Your task to perform on an android device: Search for razer huntsman on costco.com, select the first entry, and add it to the cart. Image 0: 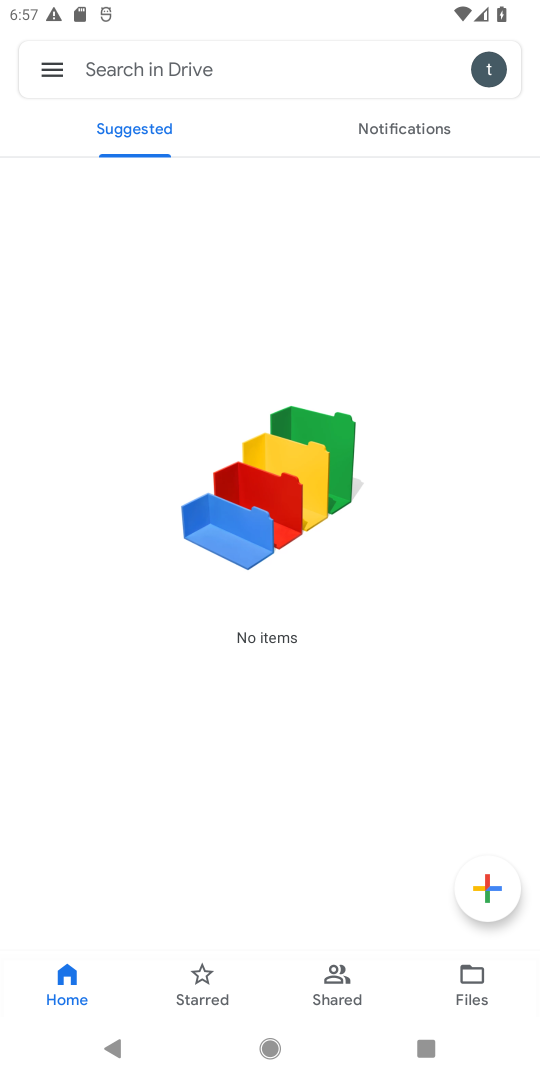
Step 0: press home button
Your task to perform on an android device: Search for razer huntsman on costco.com, select the first entry, and add it to the cart. Image 1: 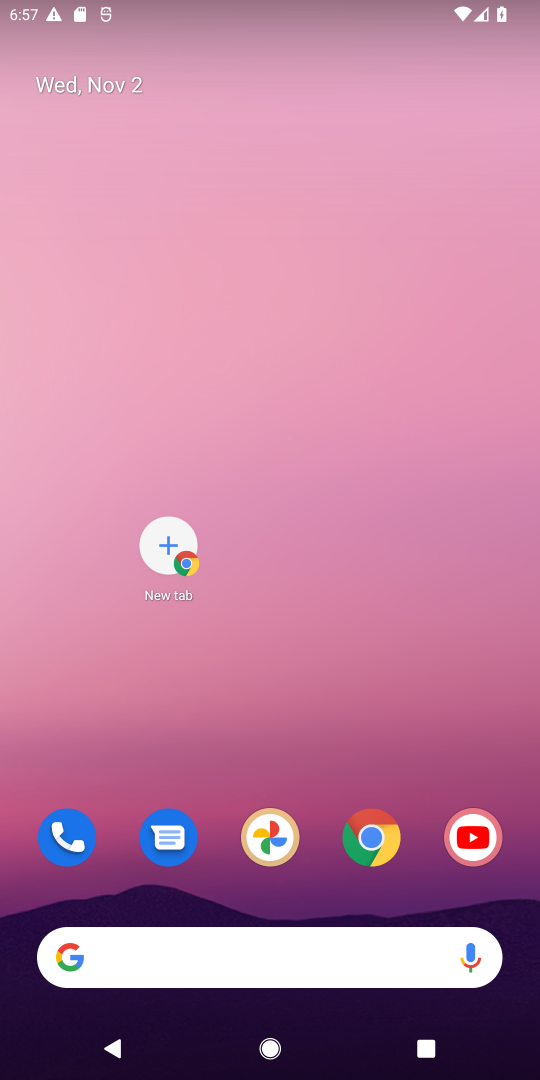
Step 1: click (175, 551)
Your task to perform on an android device: Search for razer huntsman on costco.com, select the first entry, and add it to the cart. Image 2: 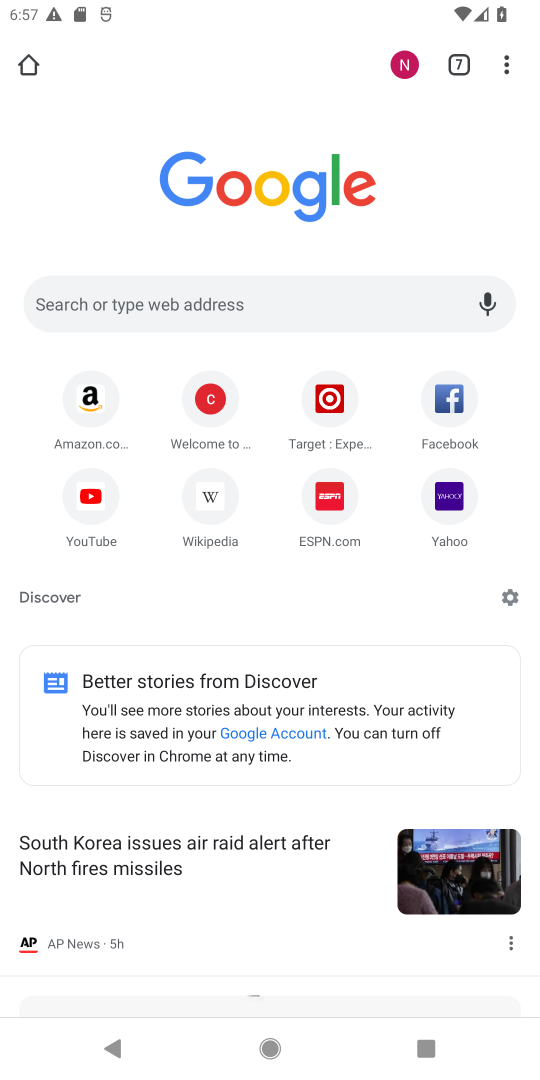
Step 2: click (250, 312)
Your task to perform on an android device: Search for razer huntsman on costco.com, select the first entry, and add it to the cart. Image 3: 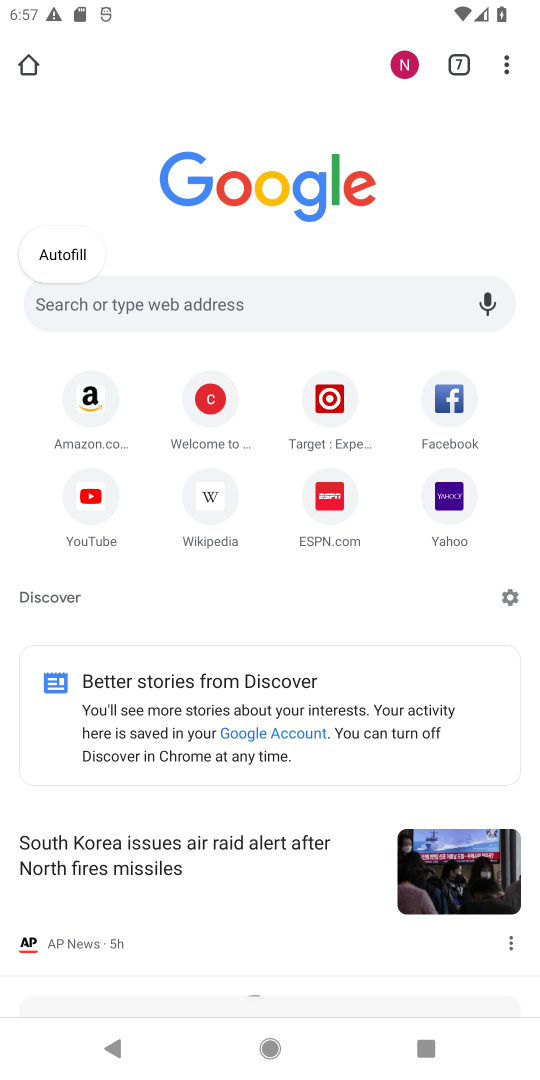
Step 3: click (255, 303)
Your task to perform on an android device: Search for razer huntsman on costco.com, select the first entry, and add it to the cart. Image 4: 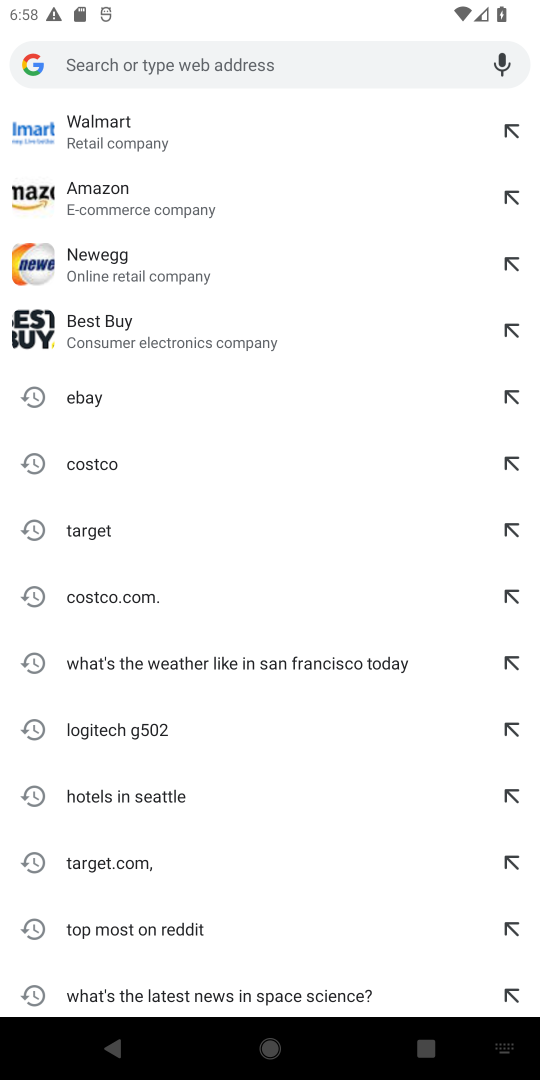
Step 4: type "costco.com"
Your task to perform on an android device: Search for razer huntsman on costco.com, select the first entry, and add it to the cart. Image 5: 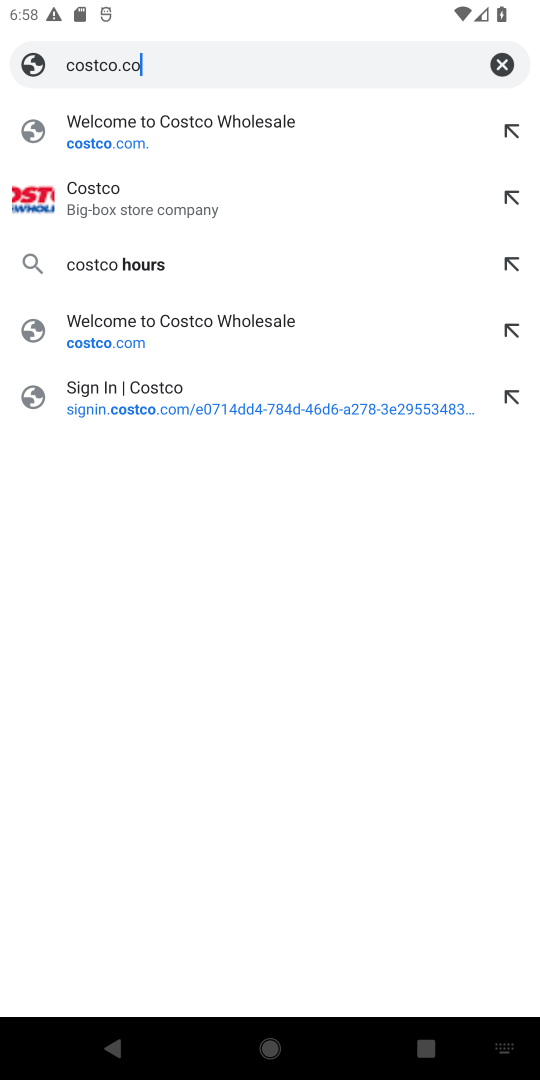
Step 5: type ""
Your task to perform on an android device: Search for razer huntsman on costco.com, select the first entry, and add it to the cart. Image 6: 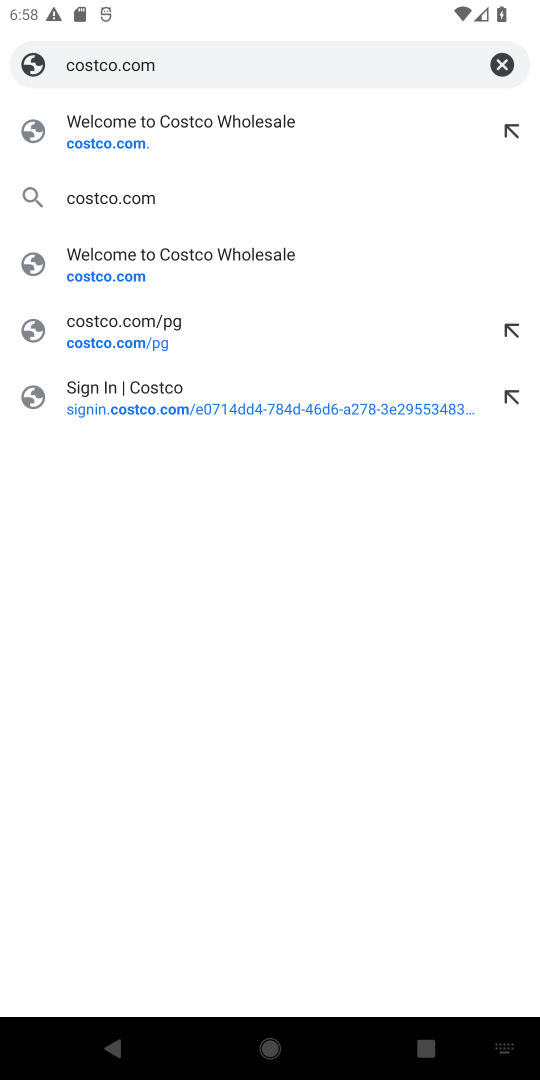
Step 6: click (159, 139)
Your task to perform on an android device: Search for razer huntsman on costco.com, select the first entry, and add it to the cart. Image 7: 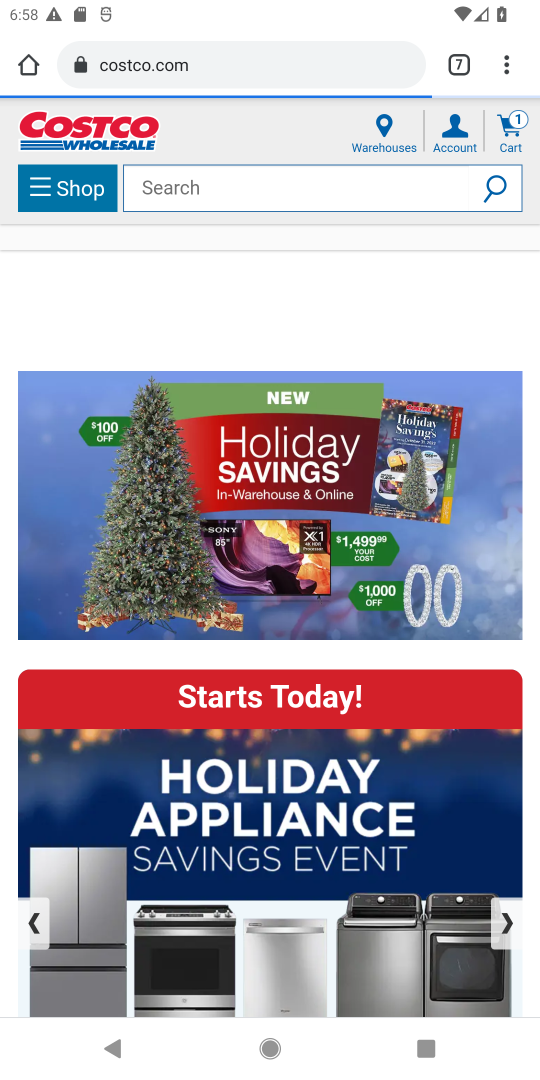
Step 7: click (284, 189)
Your task to perform on an android device: Search for razer huntsman on costco.com, select the first entry, and add it to the cart. Image 8: 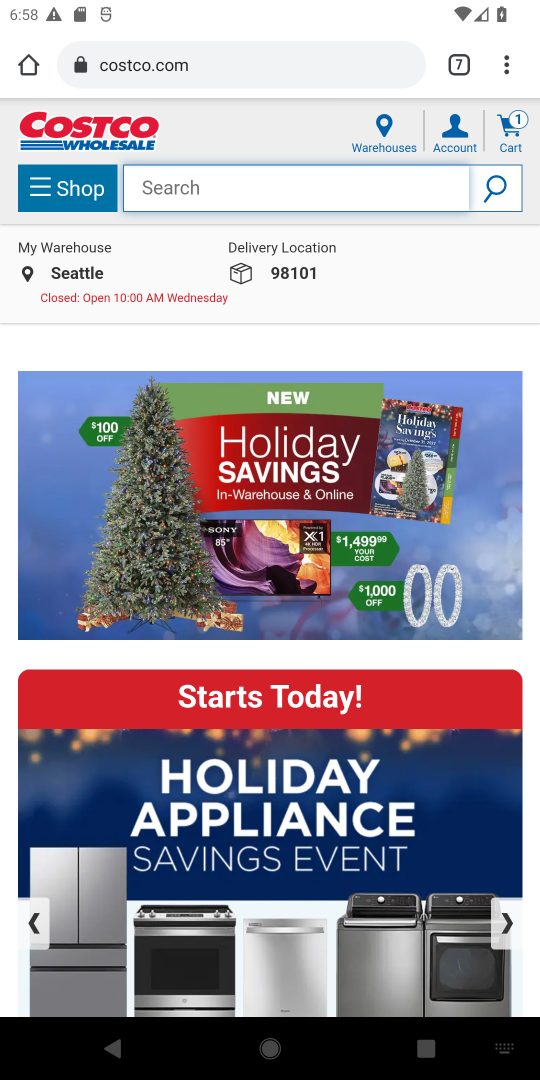
Step 8: type "razer huntsman"
Your task to perform on an android device: Search for razer huntsman on costco.com, select the first entry, and add it to the cart. Image 9: 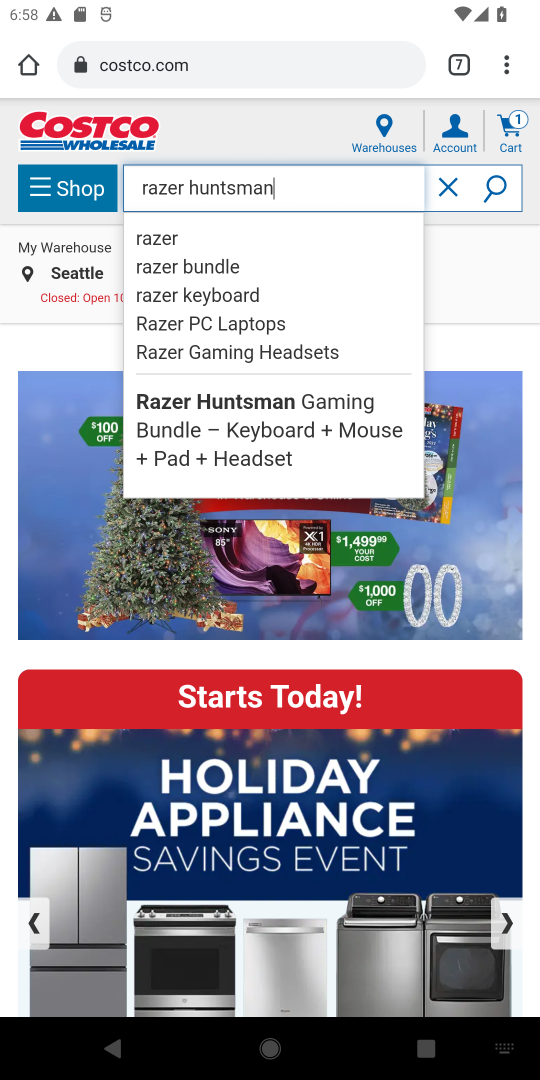
Step 9: click (194, 239)
Your task to perform on an android device: Search for razer huntsman on costco.com, select the first entry, and add it to the cart. Image 10: 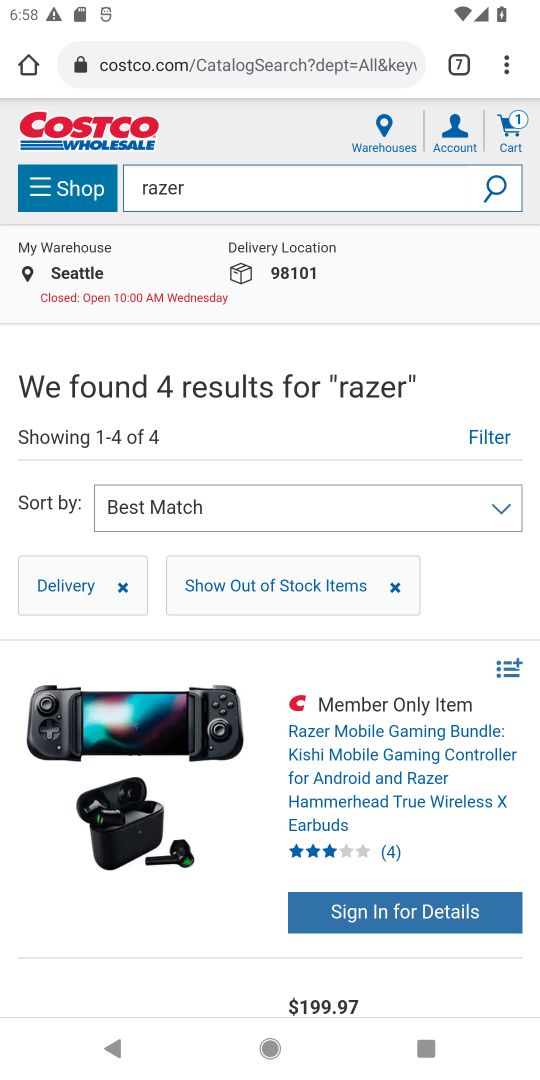
Step 10: click (203, 720)
Your task to perform on an android device: Search for razer huntsman on costco.com, select the first entry, and add it to the cart. Image 11: 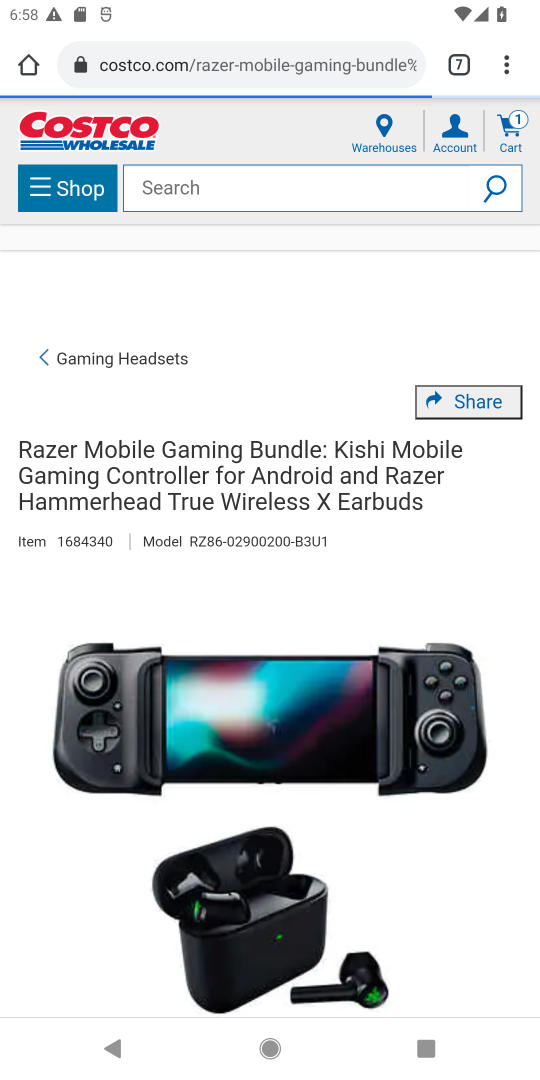
Step 11: drag from (239, 749) to (296, 409)
Your task to perform on an android device: Search for razer huntsman on costco.com, select the first entry, and add it to the cart. Image 12: 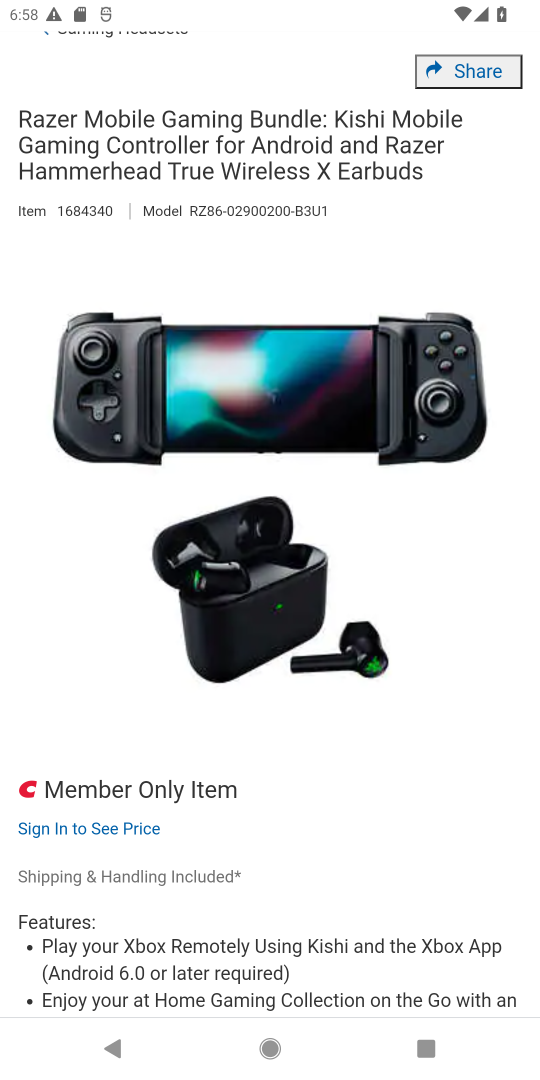
Step 12: drag from (251, 758) to (326, 383)
Your task to perform on an android device: Search for razer huntsman on costco.com, select the first entry, and add it to the cart. Image 13: 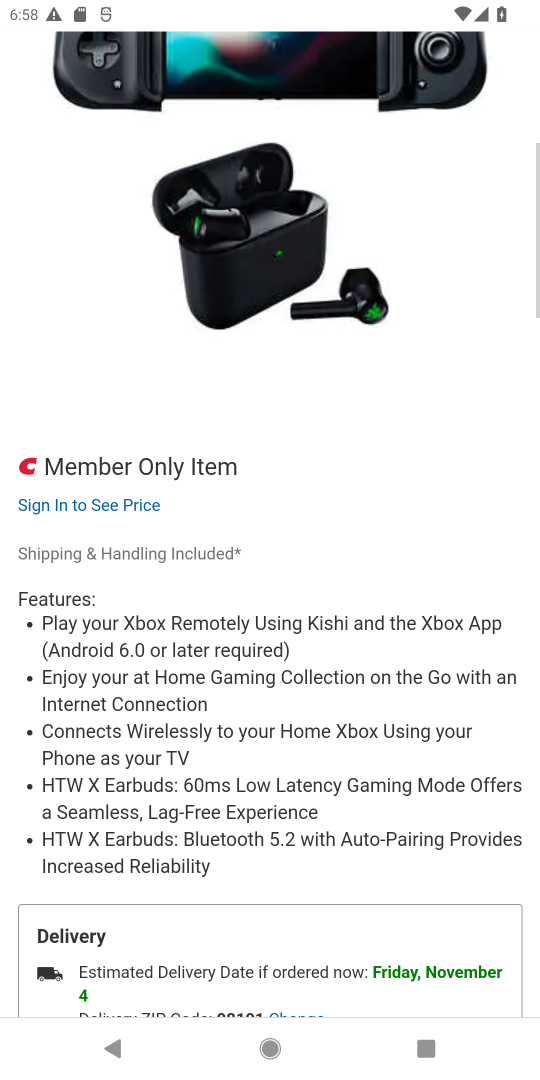
Step 13: drag from (276, 844) to (375, 347)
Your task to perform on an android device: Search for razer huntsman on costco.com, select the first entry, and add it to the cart. Image 14: 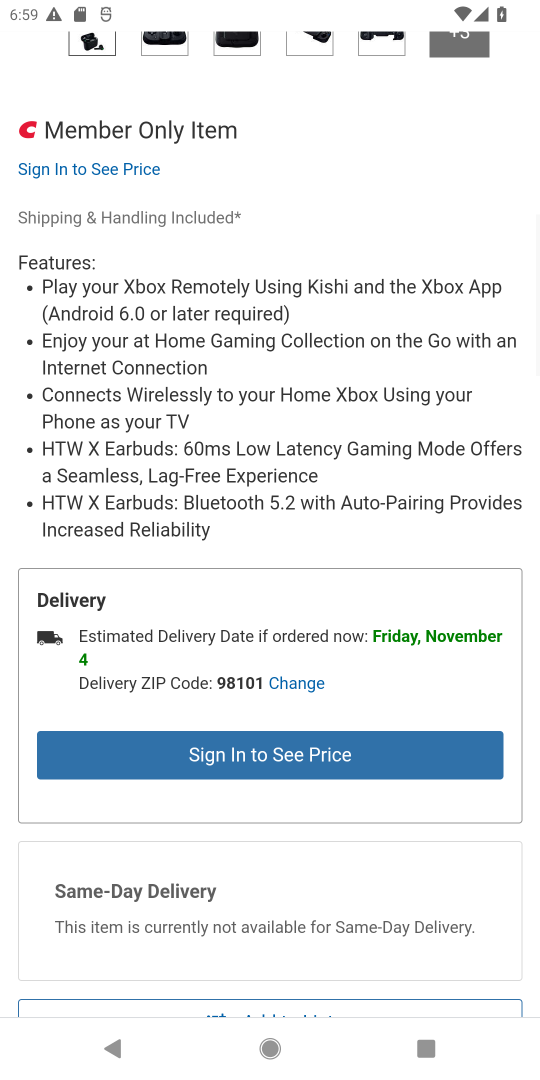
Step 14: drag from (266, 858) to (295, 402)
Your task to perform on an android device: Search for razer huntsman on costco.com, select the first entry, and add it to the cart. Image 15: 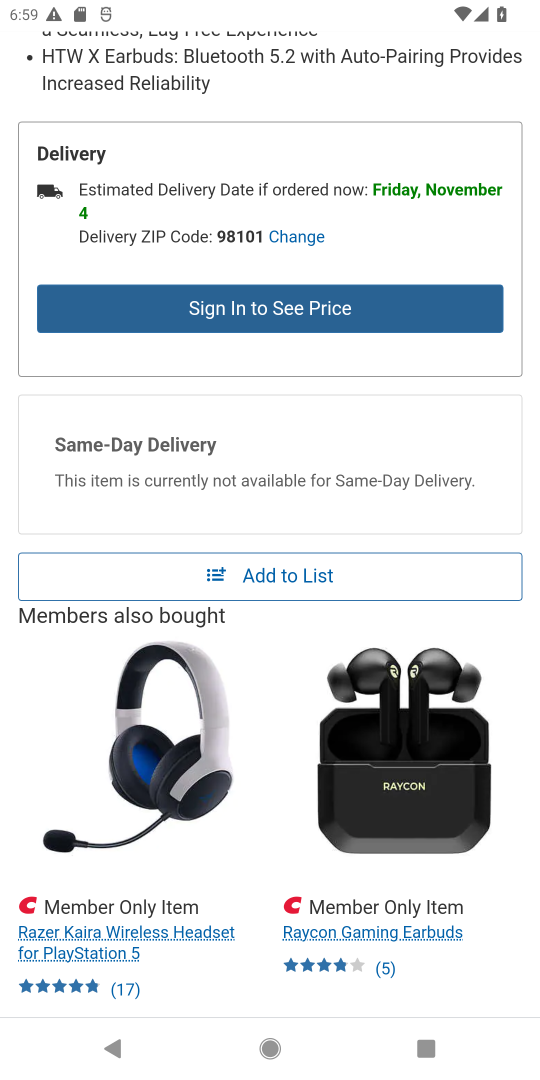
Step 15: drag from (289, 573) to (328, 300)
Your task to perform on an android device: Search for razer huntsman on costco.com, select the first entry, and add it to the cart. Image 16: 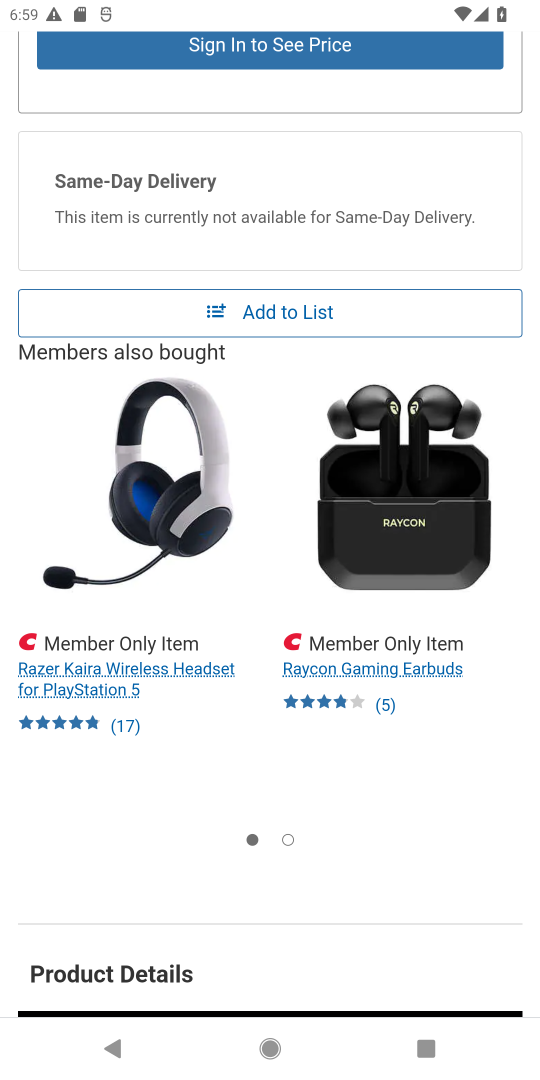
Step 16: drag from (297, 723) to (367, 901)
Your task to perform on an android device: Search for razer huntsman on costco.com, select the first entry, and add it to the cart. Image 17: 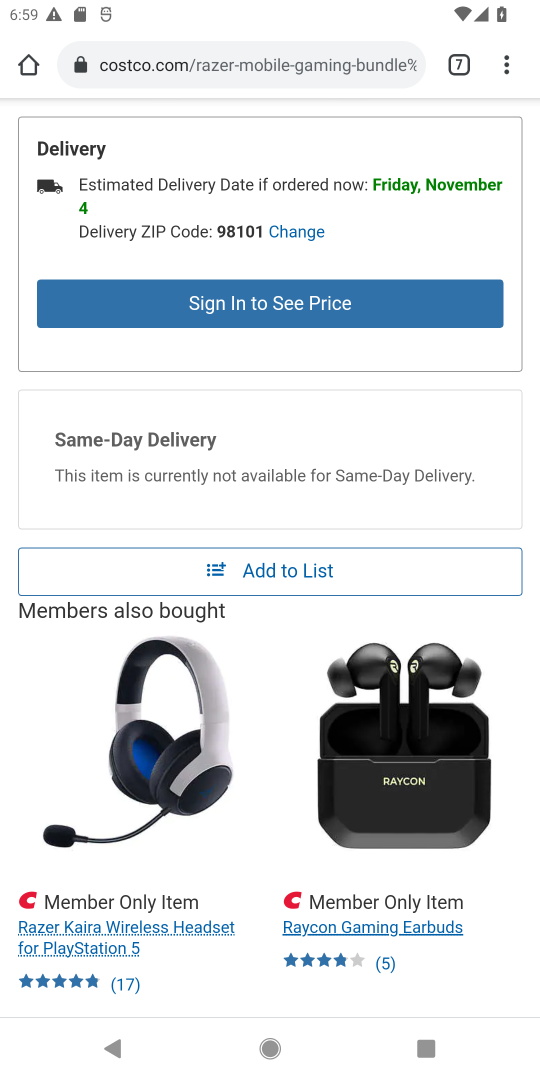
Step 17: drag from (335, 375) to (334, 814)
Your task to perform on an android device: Search for razer huntsman on costco.com, select the first entry, and add it to the cart. Image 18: 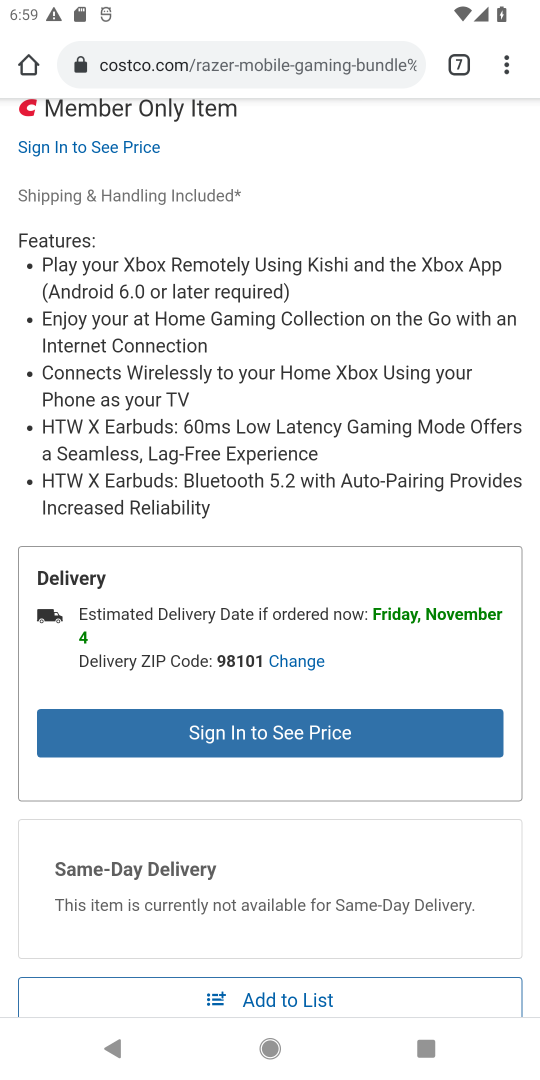
Step 18: drag from (334, 814) to (351, 497)
Your task to perform on an android device: Search for razer huntsman on costco.com, select the first entry, and add it to the cart. Image 19: 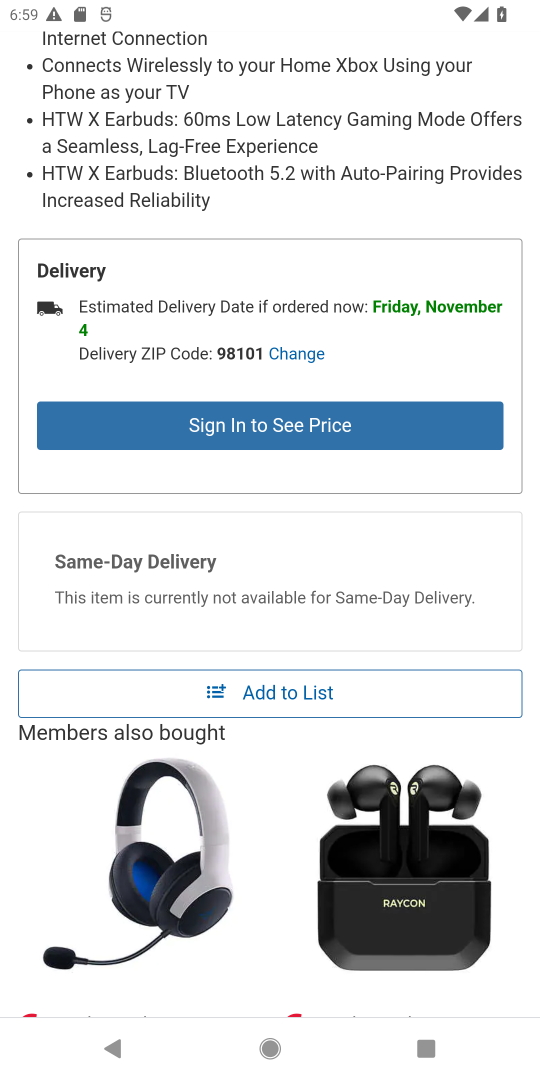
Step 19: click (291, 696)
Your task to perform on an android device: Search for razer huntsman on costco.com, select the first entry, and add it to the cart. Image 20: 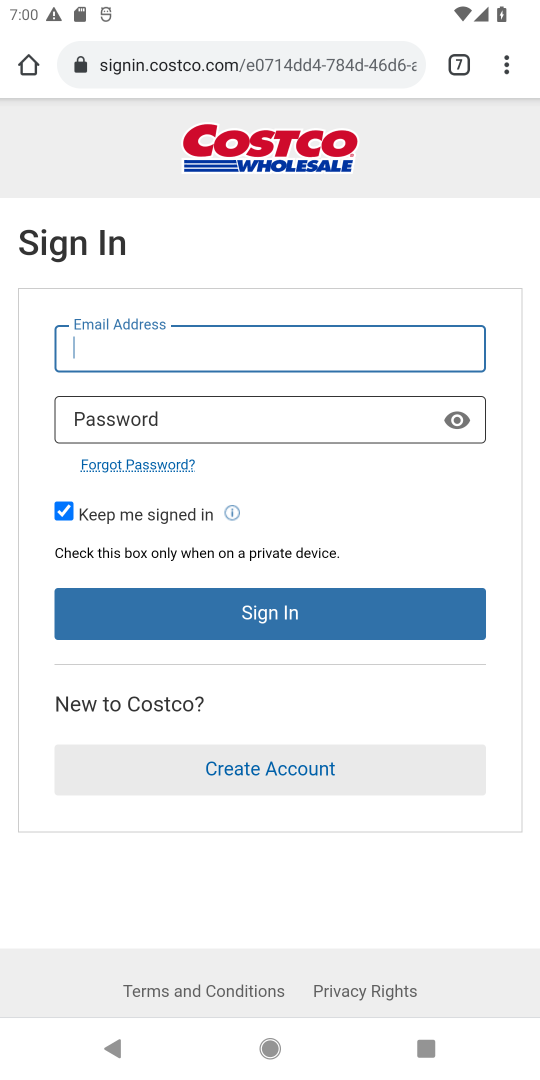
Step 20: press back button
Your task to perform on an android device: Search for razer huntsman on costco.com, select the first entry, and add it to the cart. Image 21: 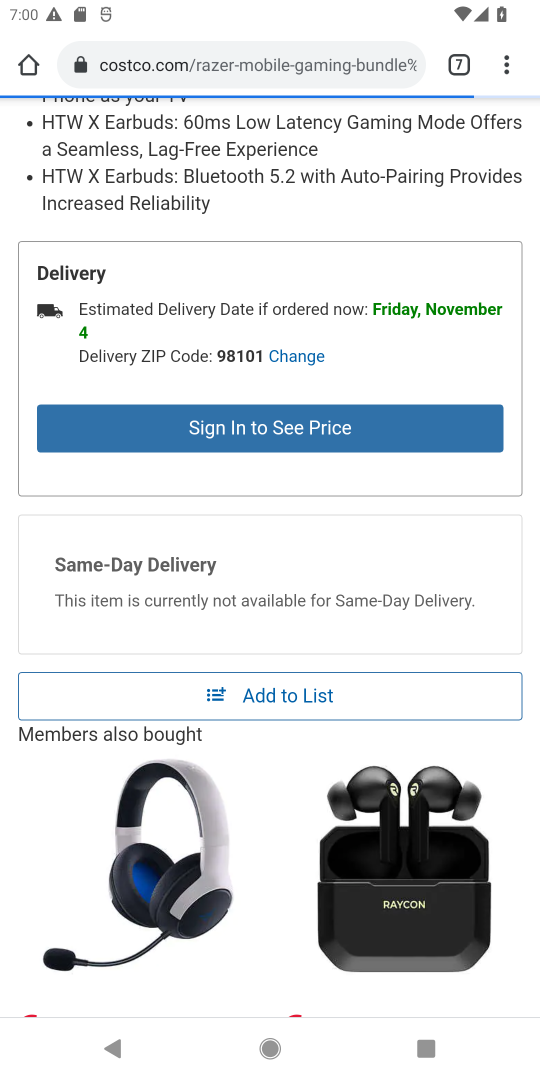
Step 21: drag from (309, 753) to (320, 987)
Your task to perform on an android device: Search for razer huntsman on costco.com, select the first entry, and add it to the cart. Image 22: 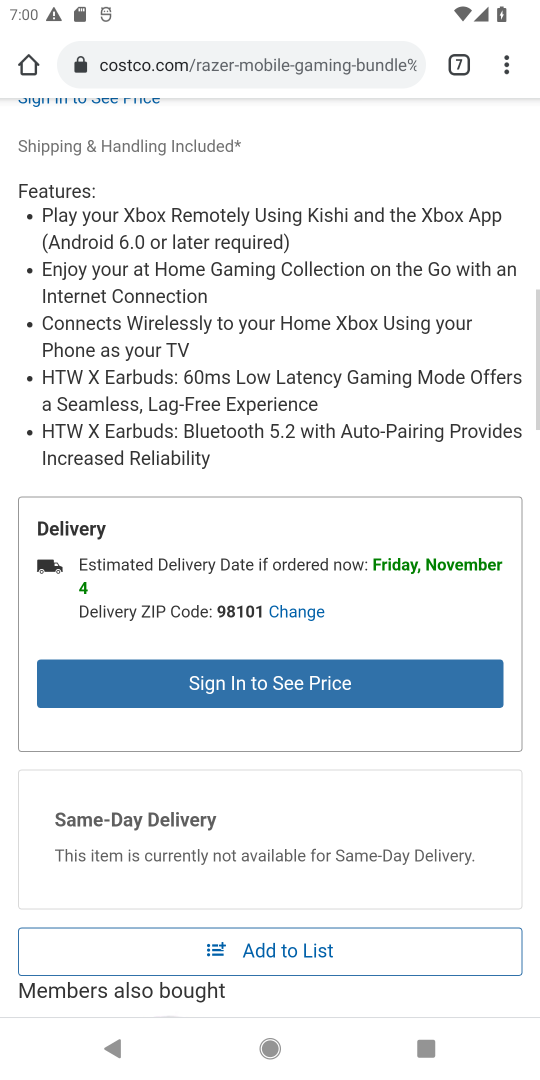
Step 22: drag from (345, 560) to (389, 974)
Your task to perform on an android device: Search for razer huntsman on costco.com, select the first entry, and add it to the cart. Image 23: 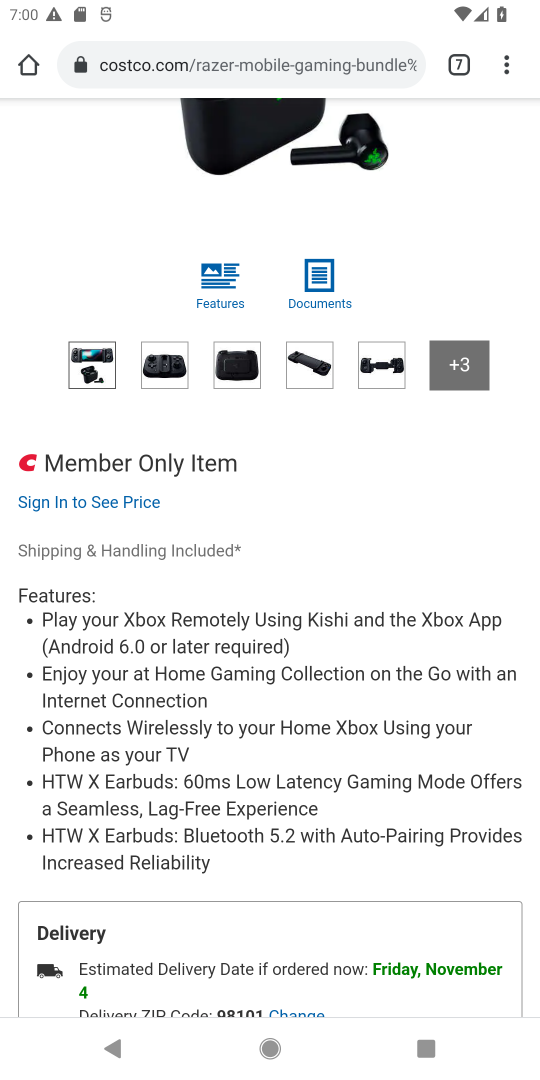
Step 23: drag from (372, 544) to (363, 1077)
Your task to perform on an android device: Search for razer huntsman on costco.com, select the first entry, and add it to the cart. Image 24: 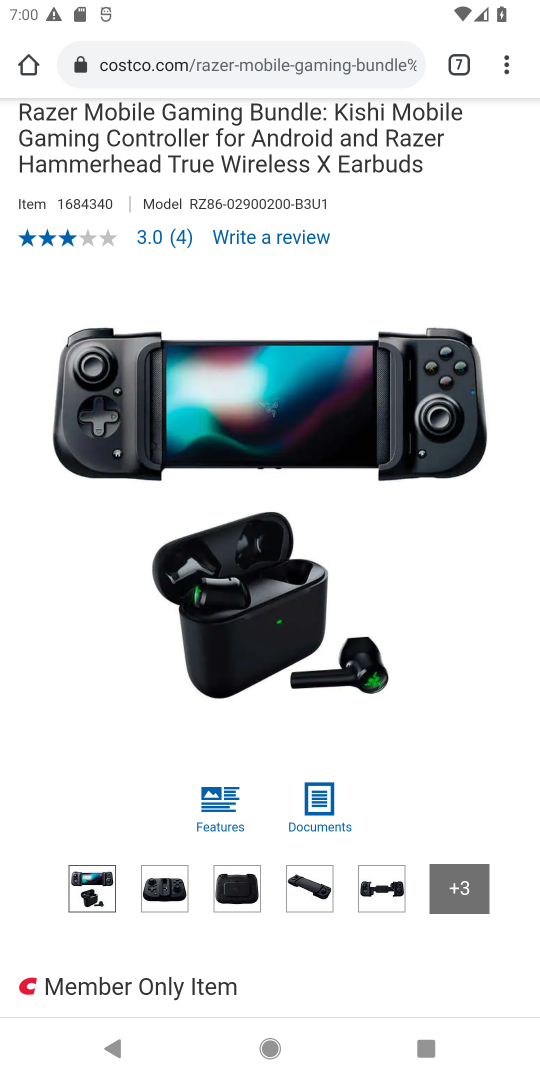
Step 24: drag from (393, 612) to (446, 1055)
Your task to perform on an android device: Search for razer huntsman on costco.com, select the first entry, and add it to the cart. Image 25: 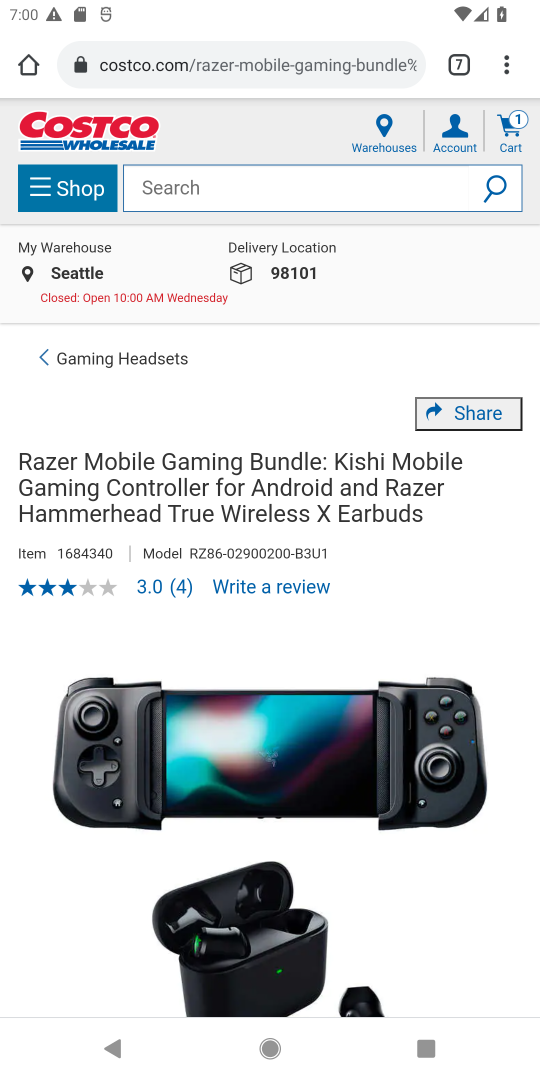
Step 25: click (518, 132)
Your task to perform on an android device: Search for razer huntsman on costco.com, select the first entry, and add it to the cart. Image 26: 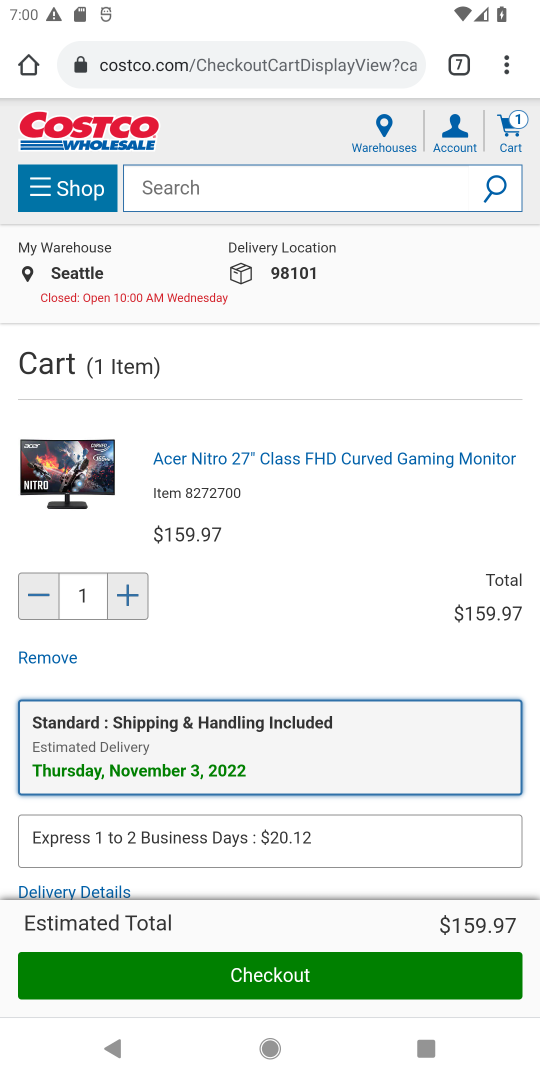
Step 26: press back button
Your task to perform on an android device: Search for razer huntsman on costco.com, select the first entry, and add it to the cart. Image 27: 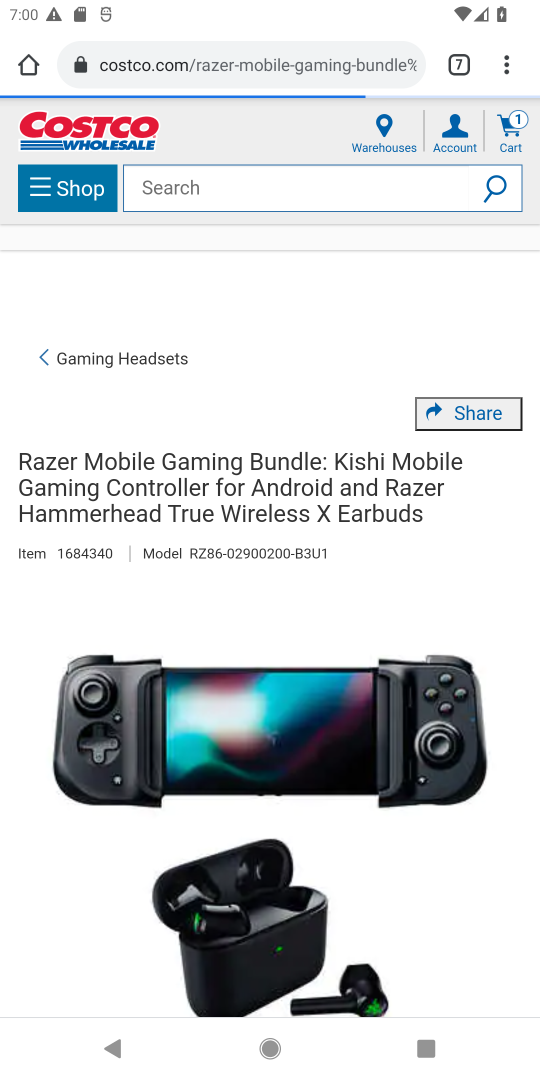
Step 27: drag from (239, 774) to (316, 320)
Your task to perform on an android device: Search for razer huntsman on costco.com, select the first entry, and add it to the cart. Image 28: 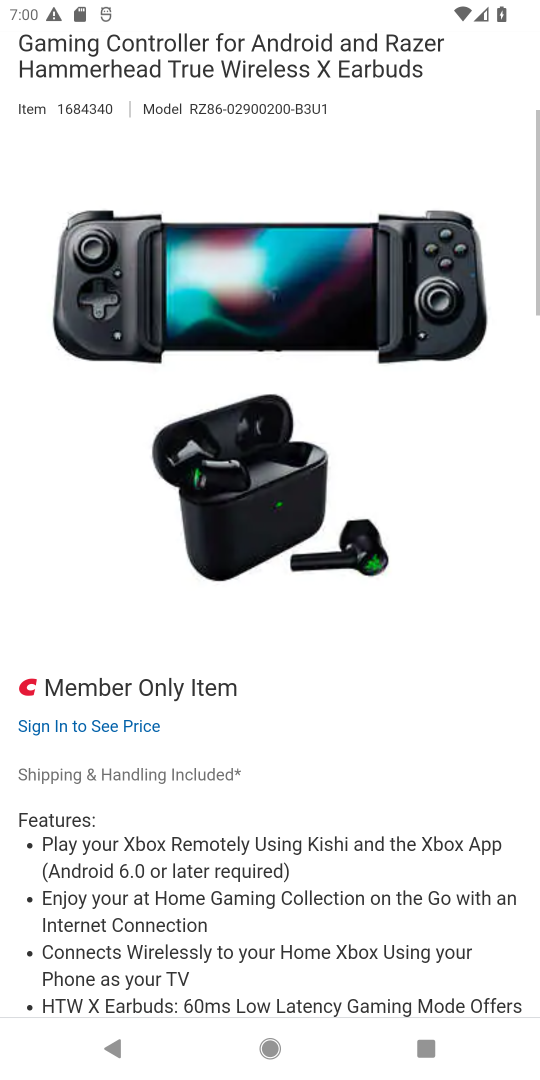
Step 28: drag from (271, 836) to (319, 394)
Your task to perform on an android device: Search for razer huntsman on costco.com, select the first entry, and add it to the cart. Image 29: 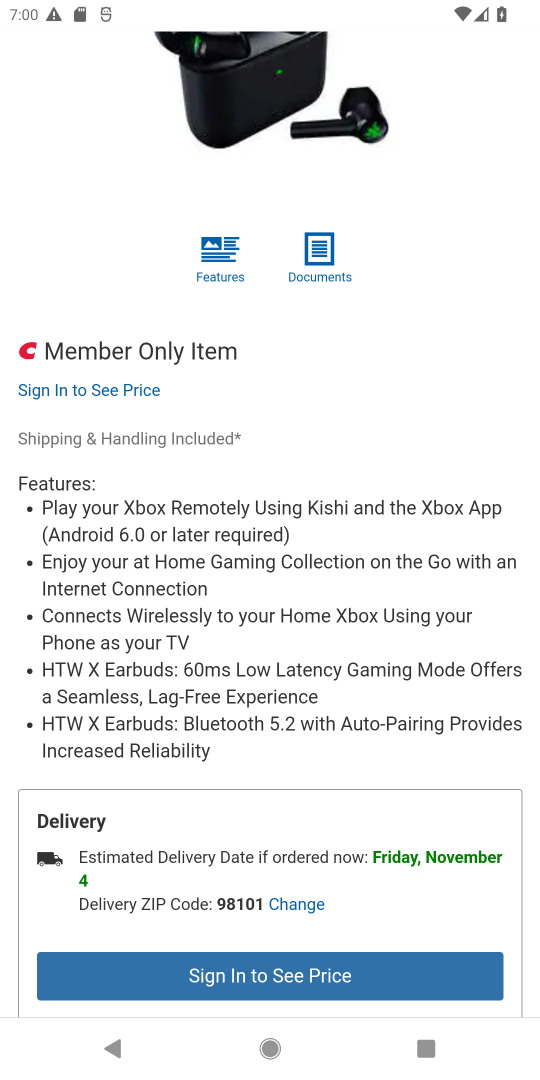
Step 29: drag from (338, 870) to (394, 402)
Your task to perform on an android device: Search for razer huntsman on costco.com, select the first entry, and add it to the cart. Image 30: 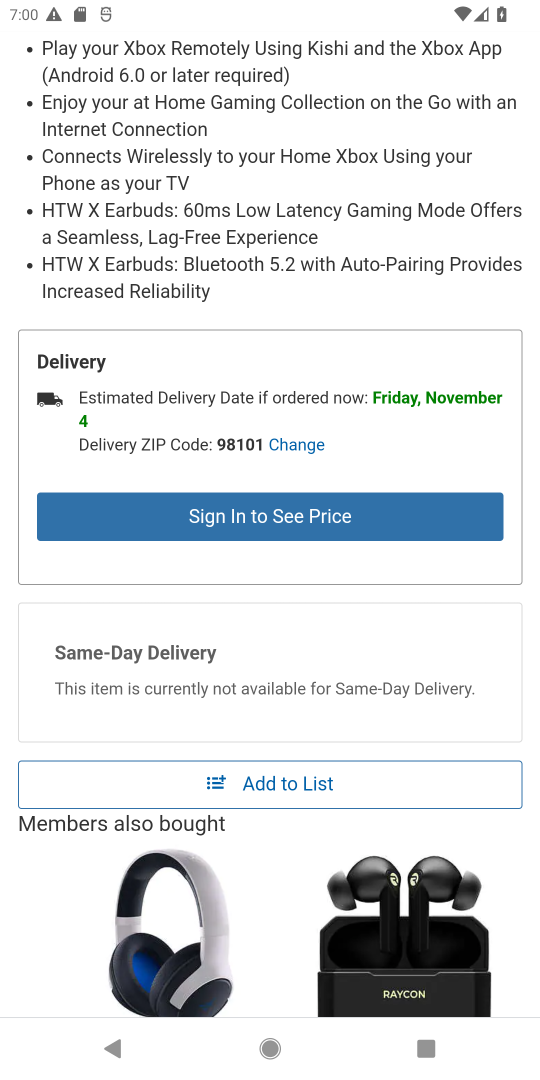
Step 30: click (285, 780)
Your task to perform on an android device: Search for razer huntsman on costco.com, select the first entry, and add it to the cart. Image 31: 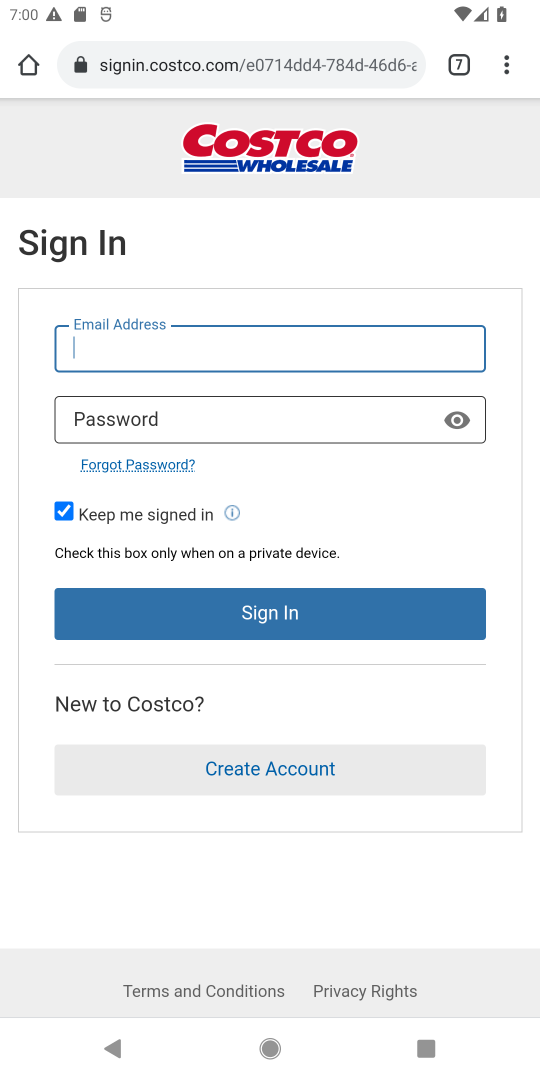
Step 31: task complete